Your task to perform on an android device: Open display settings Image 0: 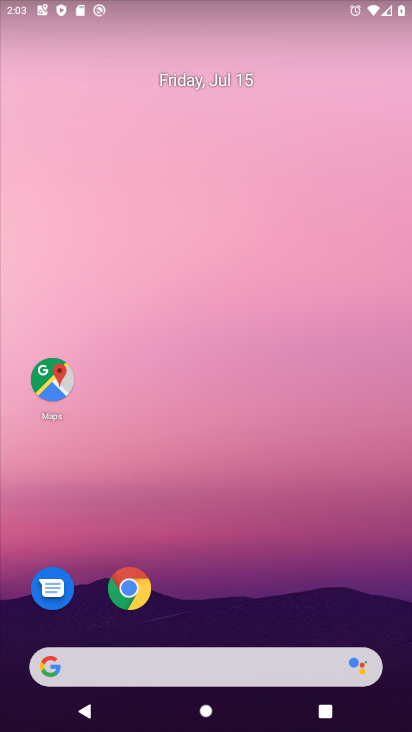
Step 0: drag from (214, 504) to (220, 255)
Your task to perform on an android device: Open display settings Image 1: 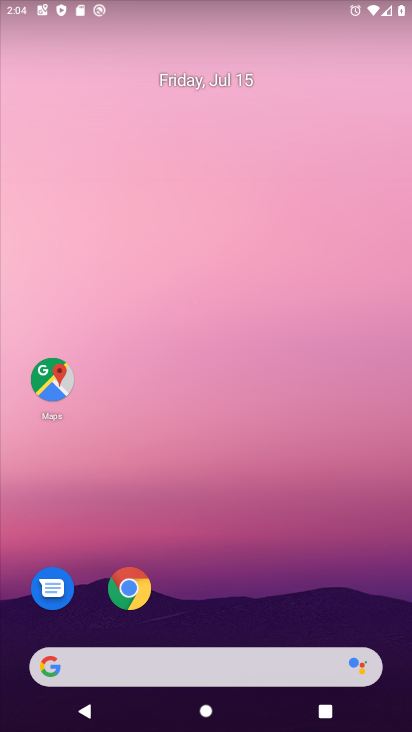
Step 1: drag from (210, 662) to (300, 230)
Your task to perform on an android device: Open display settings Image 2: 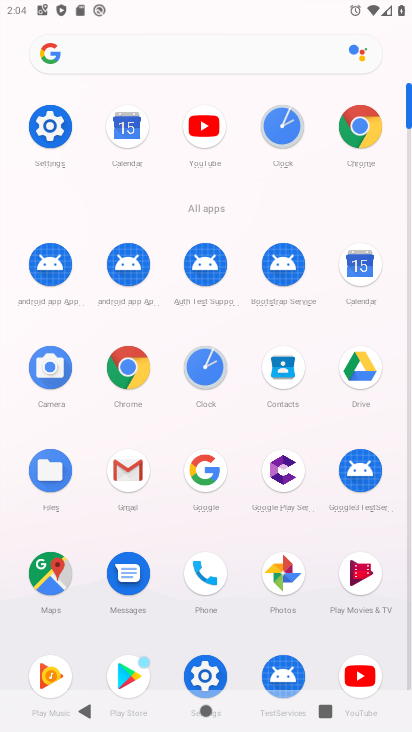
Step 2: click (51, 125)
Your task to perform on an android device: Open display settings Image 3: 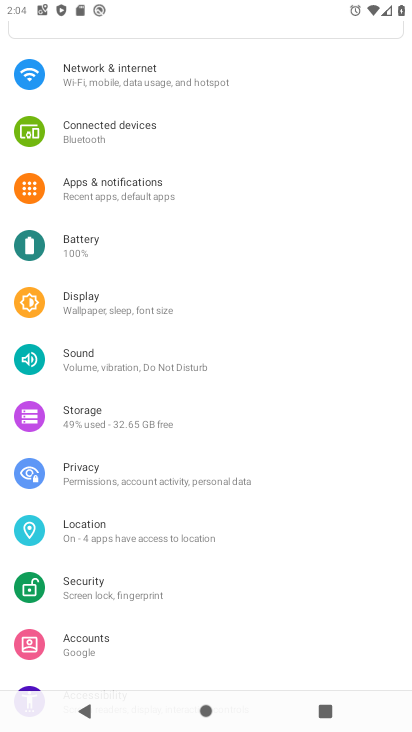
Step 3: click (85, 304)
Your task to perform on an android device: Open display settings Image 4: 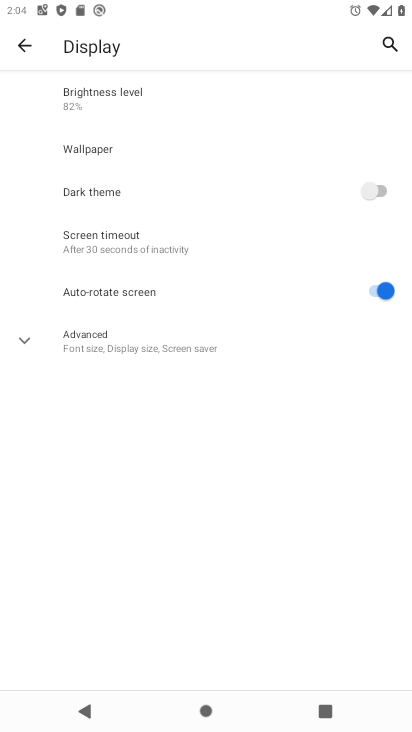
Step 4: task complete